Your task to perform on an android device: Open calendar and show me the fourth week of next month Image 0: 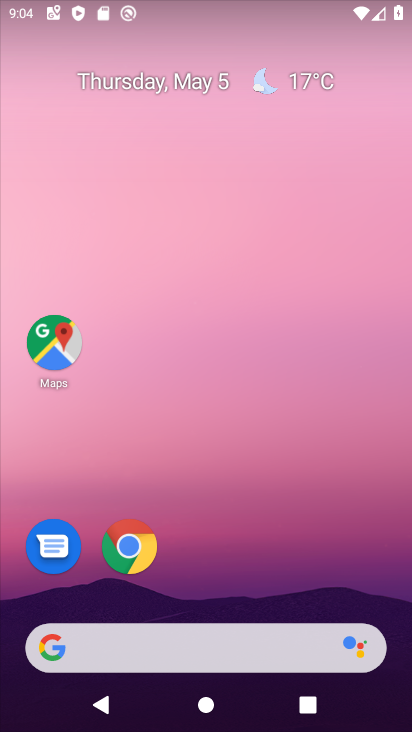
Step 0: drag from (166, 643) to (341, 194)
Your task to perform on an android device: Open calendar and show me the fourth week of next month Image 1: 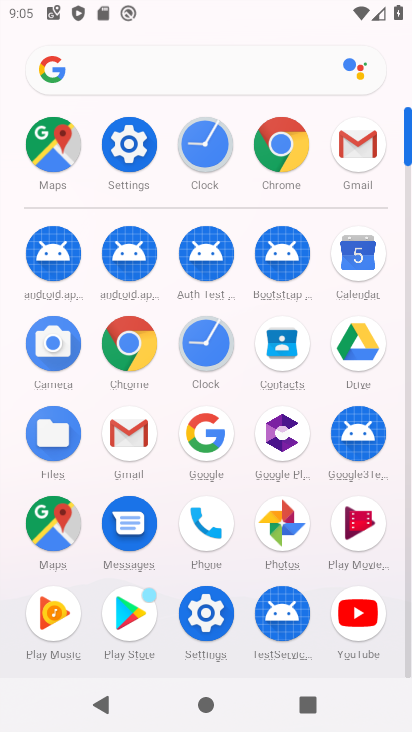
Step 1: click (350, 268)
Your task to perform on an android device: Open calendar and show me the fourth week of next month Image 2: 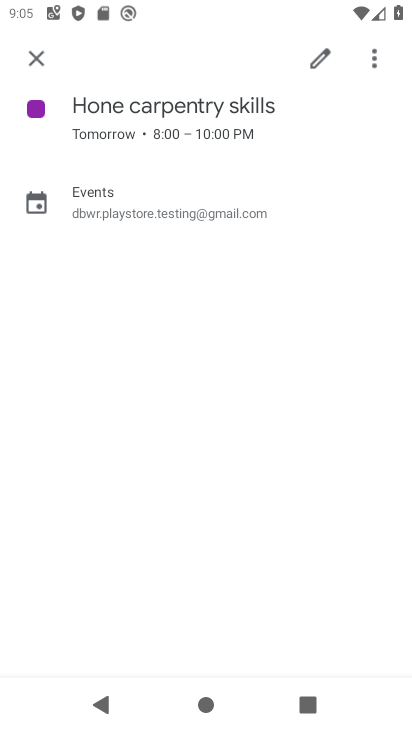
Step 2: click (39, 54)
Your task to perform on an android device: Open calendar and show me the fourth week of next month Image 3: 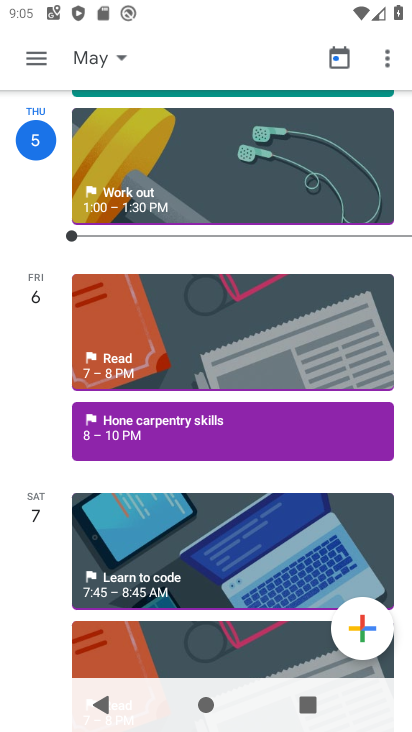
Step 3: click (88, 61)
Your task to perform on an android device: Open calendar and show me the fourth week of next month Image 4: 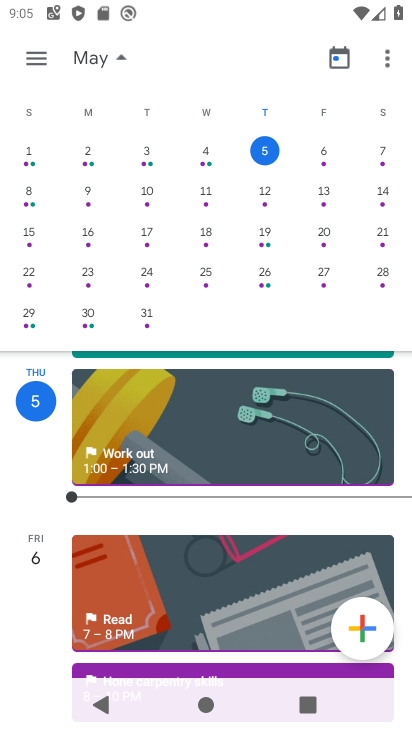
Step 4: drag from (356, 259) to (2, 271)
Your task to perform on an android device: Open calendar and show me the fourth week of next month Image 5: 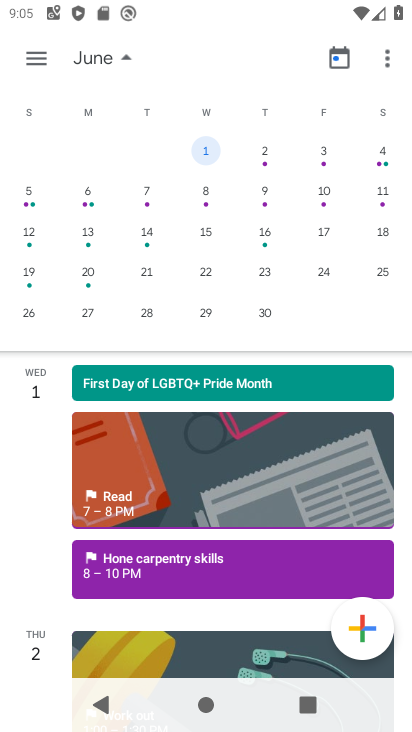
Step 5: click (31, 271)
Your task to perform on an android device: Open calendar and show me the fourth week of next month Image 6: 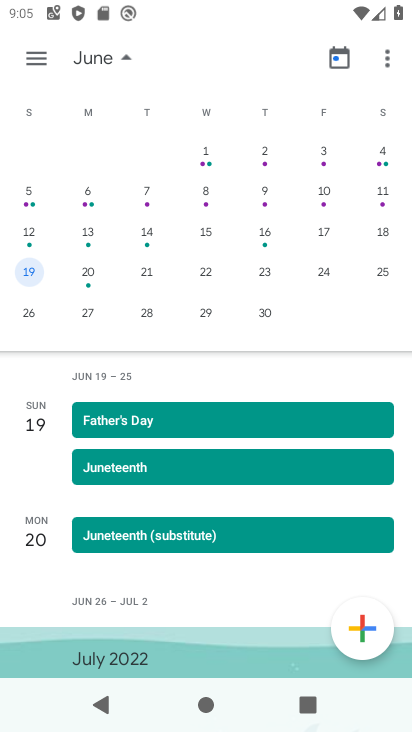
Step 6: click (37, 56)
Your task to perform on an android device: Open calendar and show me the fourth week of next month Image 7: 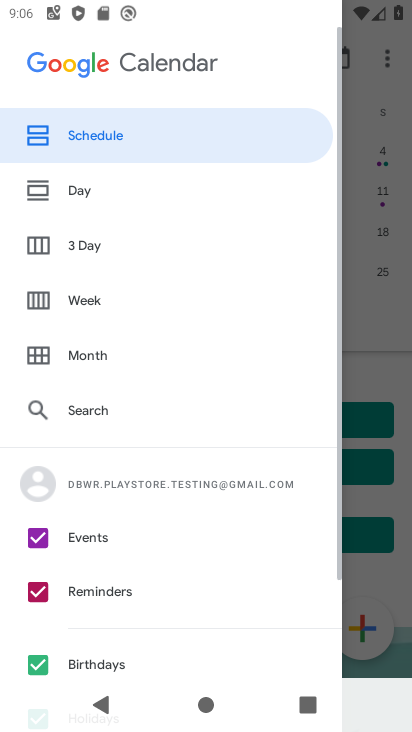
Step 7: click (98, 303)
Your task to perform on an android device: Open calendar and show me the fourth week of next month Image 8: 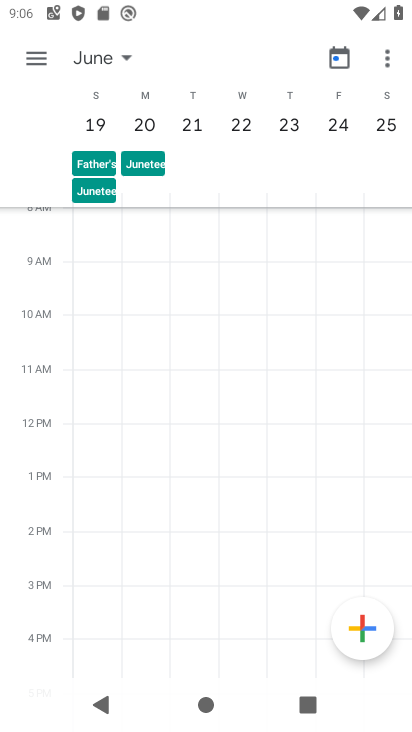
Step 8: task complete